Your task to perform on an android device: Go to Yahoo.com Image 0: 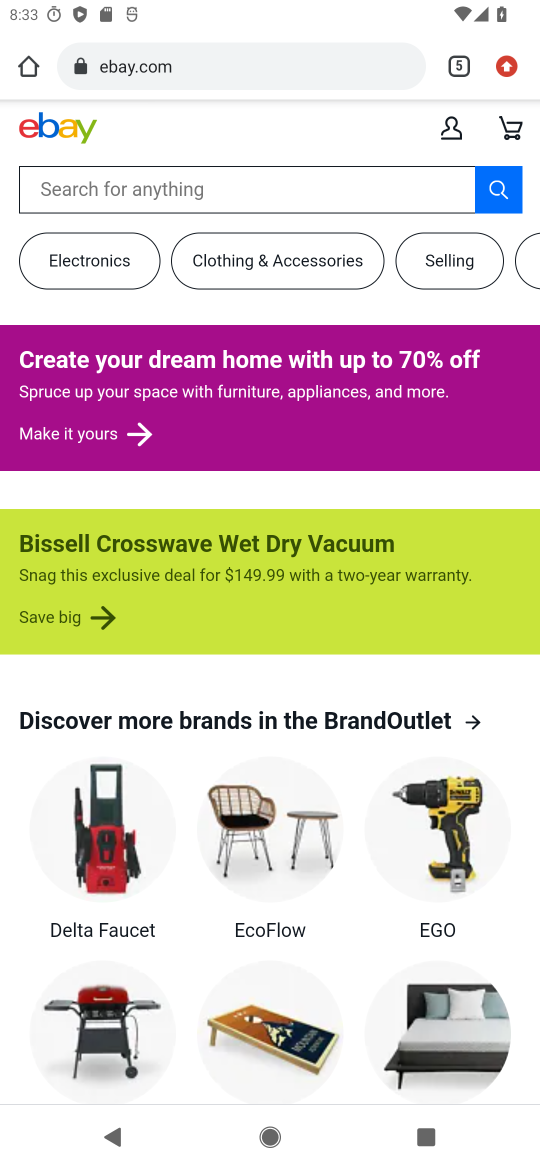
Step 0: press home button
Your task to perform on an android device: Go to Yahoo.com Image 1: 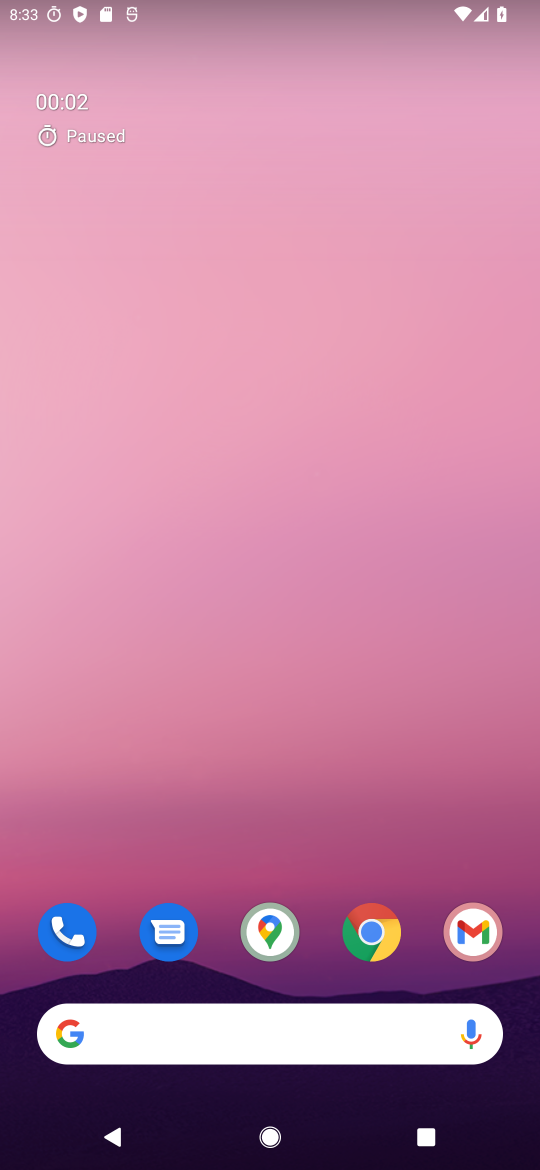
Step 1: click (379, 929)
Your task to perform on an android device: Go to Yahoo.com Image 2: 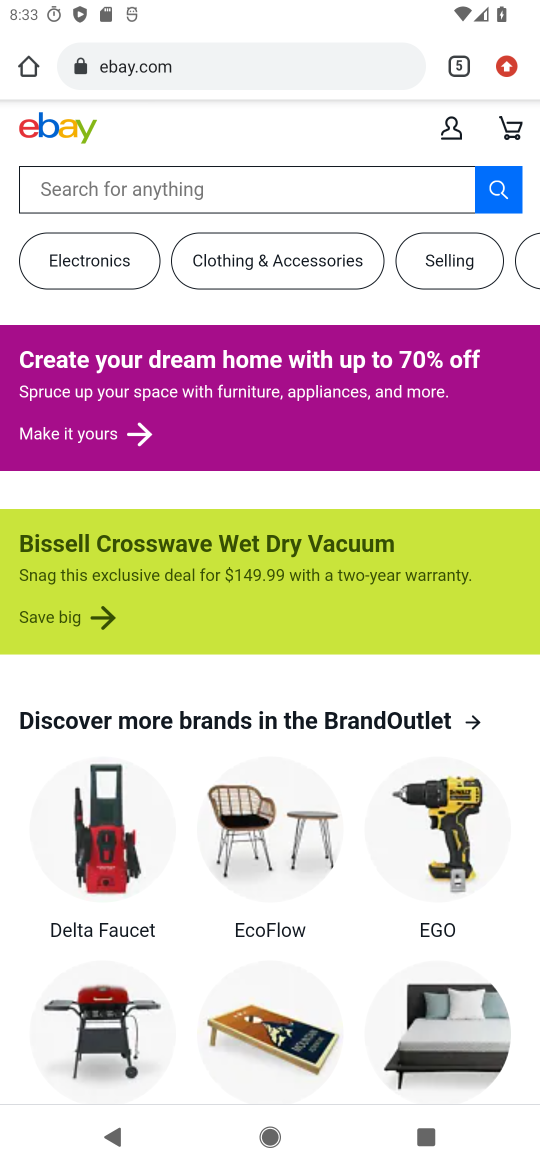
Step 2: drag from (511, 77) to (396, 203)
Your task to perform on an android device: Go to Yahoo.com Image 3: 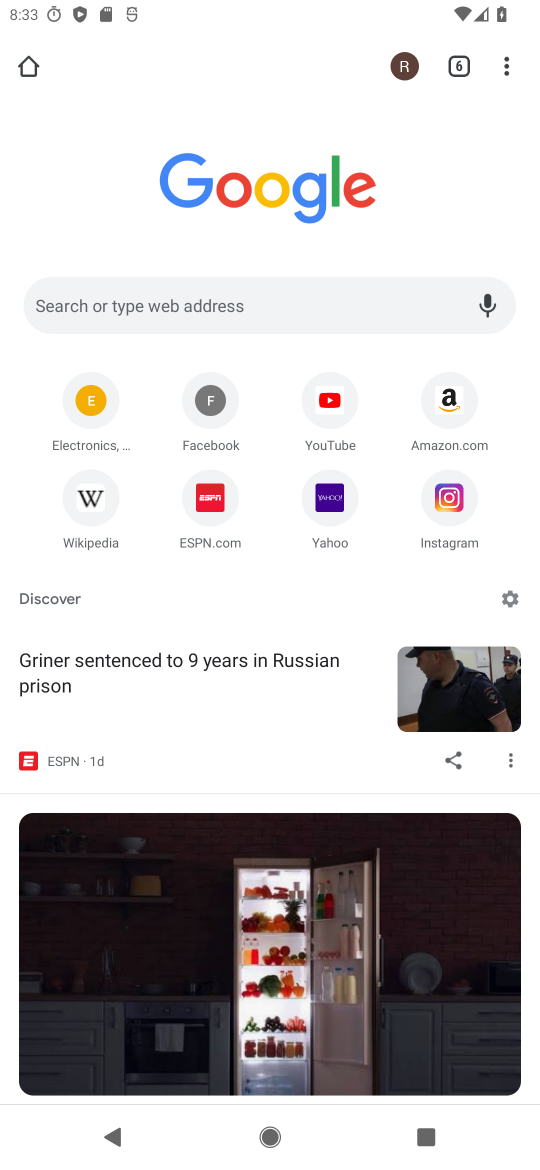
Step 3: click (325, 489)
Your task to perform on an android device: Go to Yahoo.com Image 4: 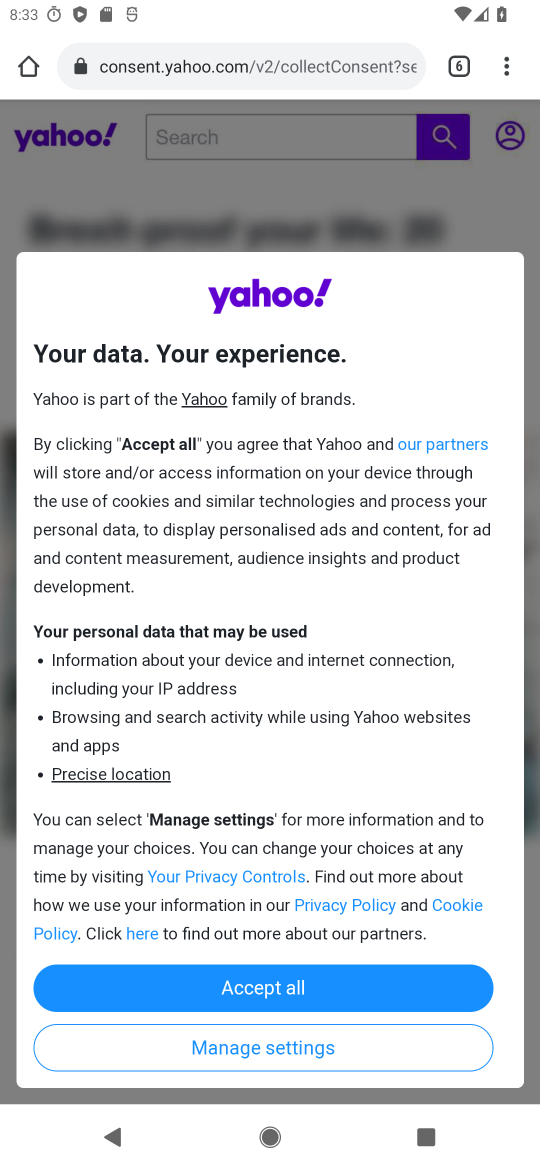
Step 4: click (279, 979)
Your task to perform on an android device: Go to Yahoo.com Image 5: 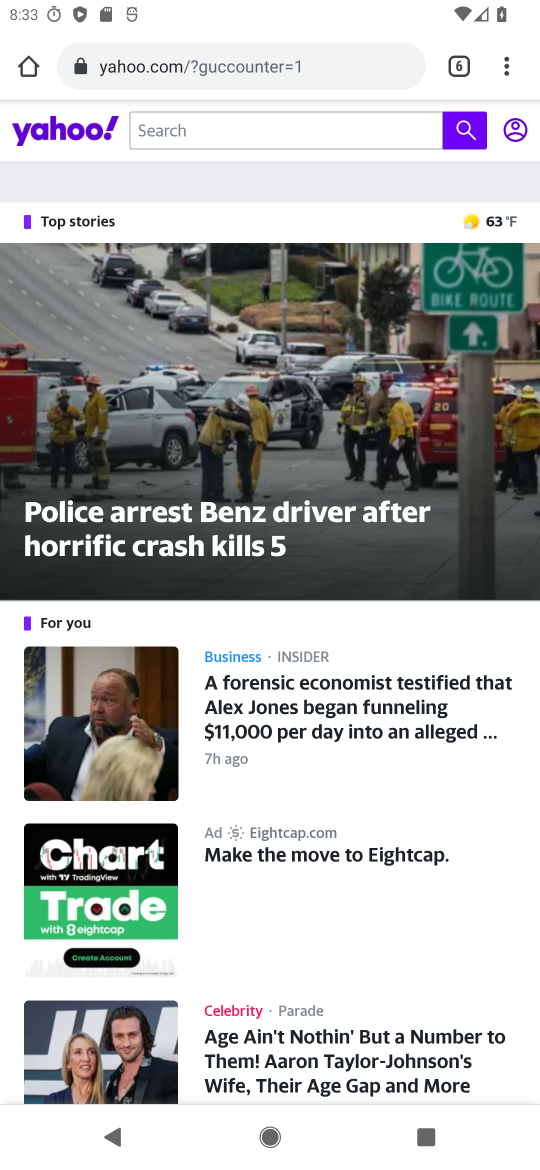
Step 5: task complete